Your task to perform on an android device: change keyboard looks Image 0: 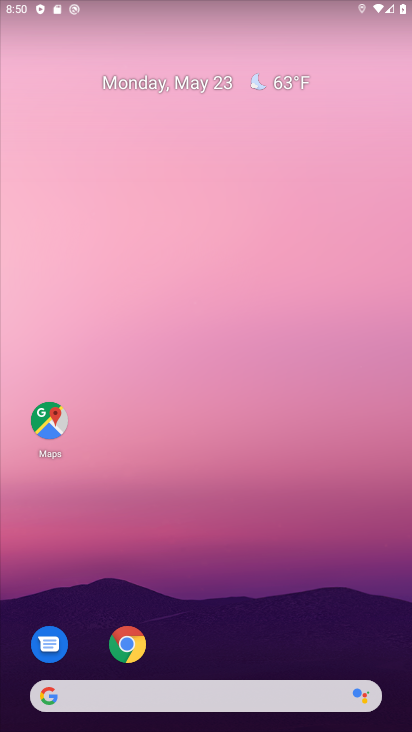
Step 0: press home button
Your task to perform on an android device: change keyboard looks Image 1: 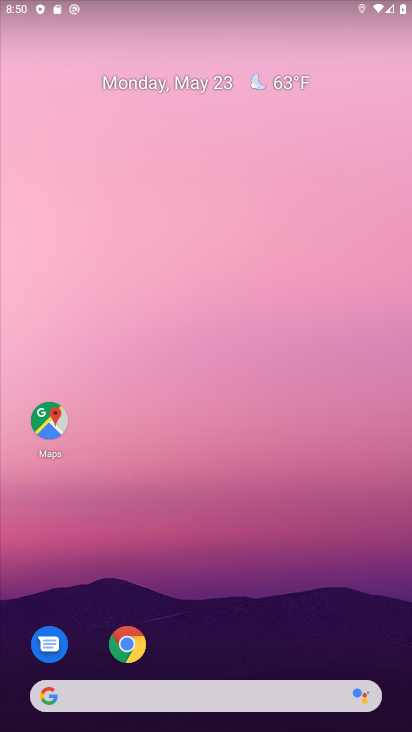
Step 1: drag from (202, 651) to (209, 0)
Your task to perform on an android device: change keyboard looks Image 2: 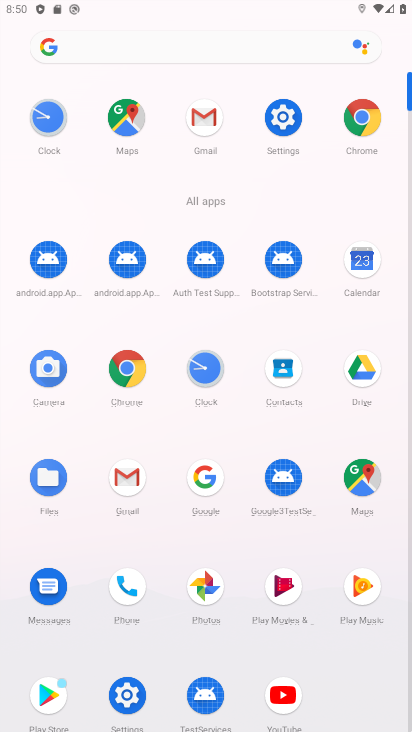
Step 2: click (280, 113)
Your task to perform on an android device: change keyboard looks Image 3: 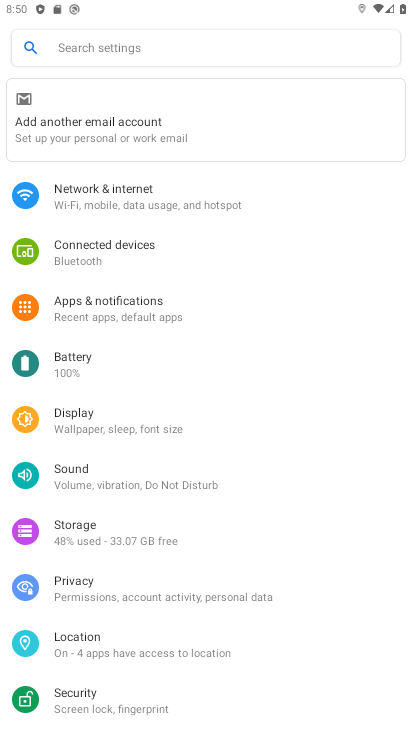
Step 3: drag from (167, 659) to (215, 104)
Your task to perform on an android device: change keyboard looks Image 4: 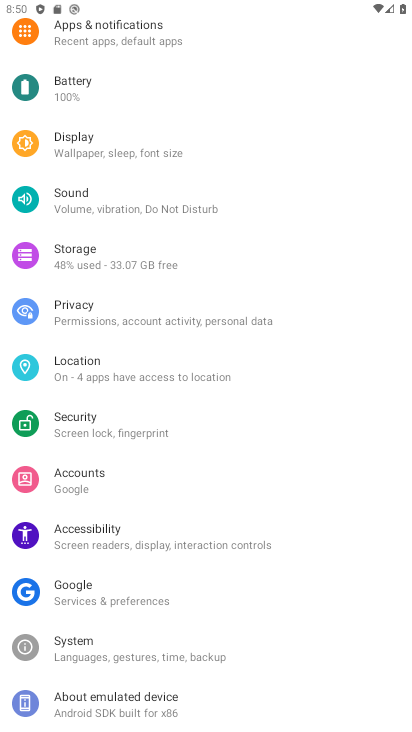
Step 4: click (112, 645)
Your task to perform on an android device: change keyboard looks Image 5: 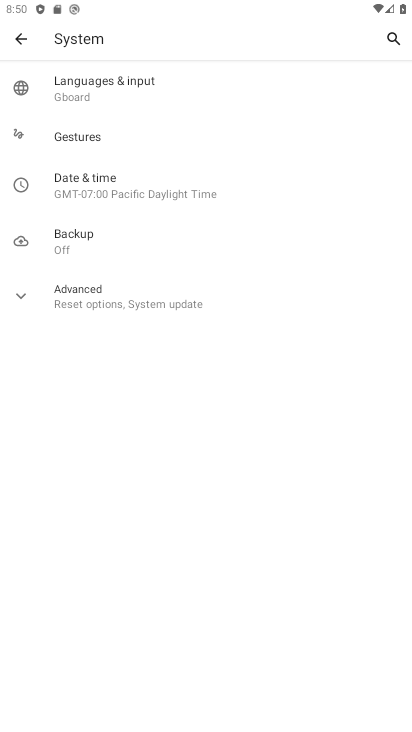
Step 5: click (88, 86)
Your task to perform on an android device: change keyboard looks Image 6: 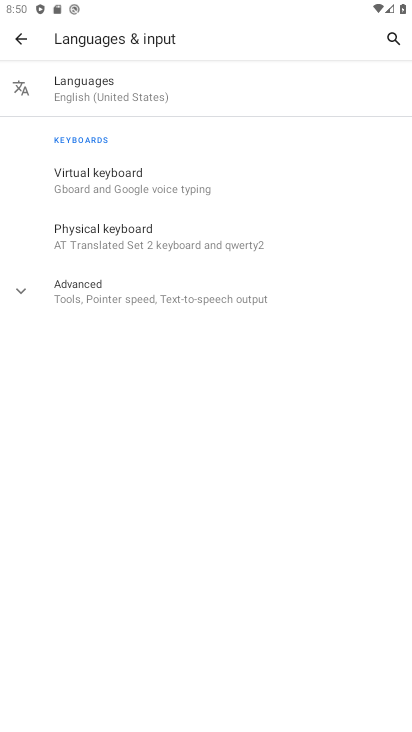
Step 6: click (155, 174)
Your task to perform on an android device: change keyboard looks Image 7: 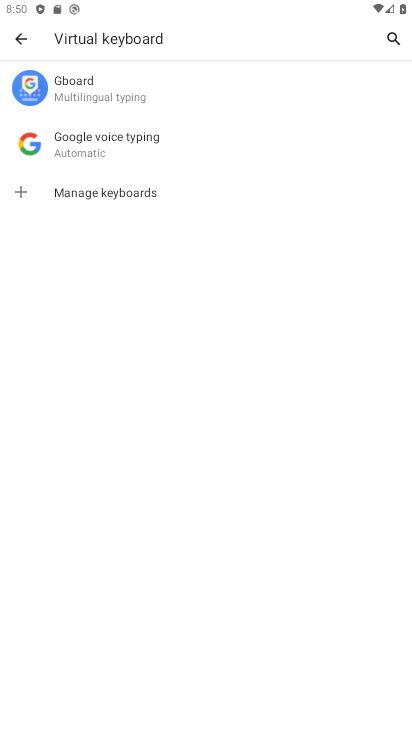
Step 7: click (83, 82)
Your task to perform on an android device: change keyboard looks Image 8: 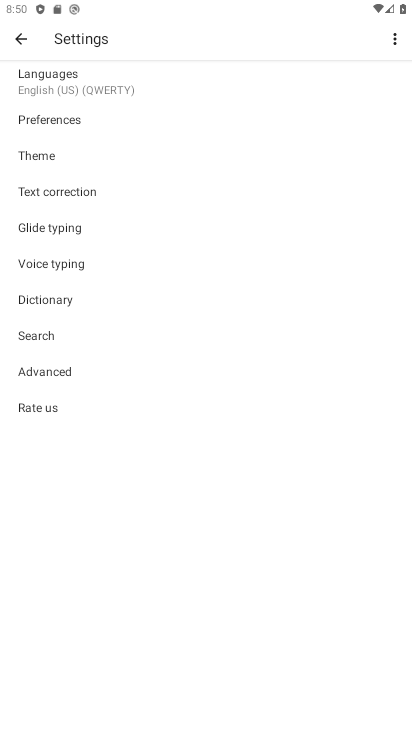
Step 8: click (78, 153)
Your task to perform on an android device: change keyboard looks Image 9: 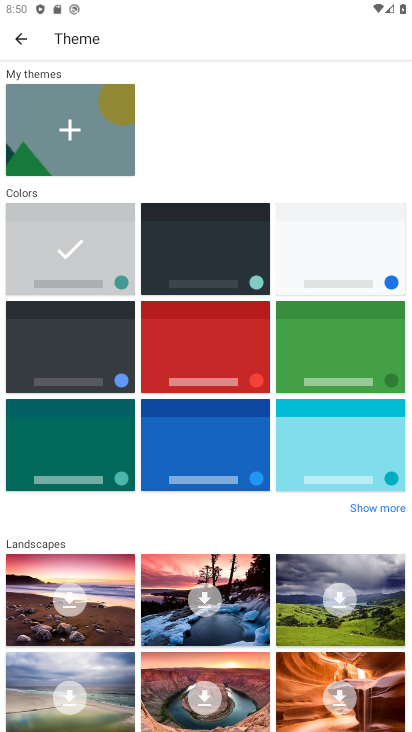
Step 9: click (59, 341)
Your task to perform on an android device: change keyboard looks Image 10: 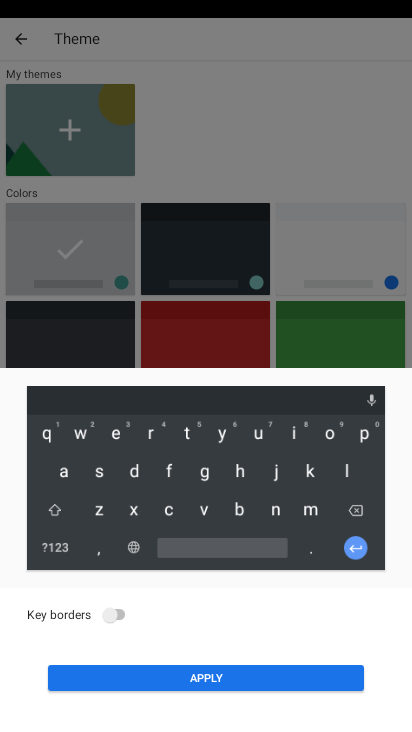
Step 10: click (202, 674)
Your task to perform on an android device: change keyboard looks Image 11: 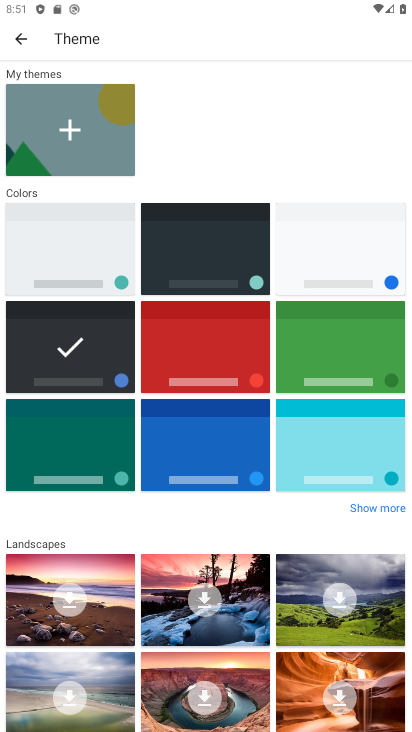
Step 11: task complete